Your task to perform on an android device: Search for Italian restaurants on Maps Image 0: 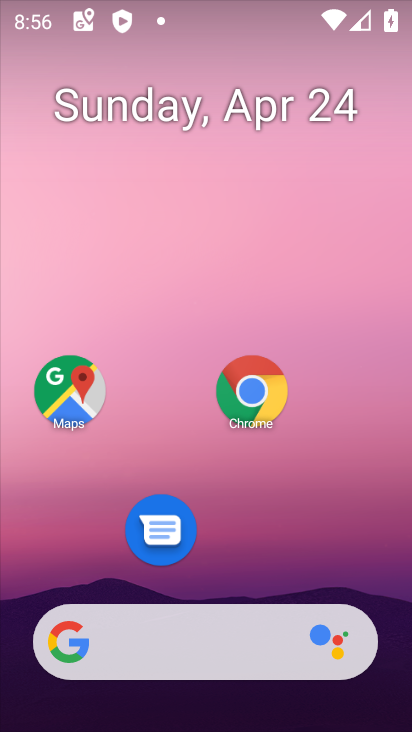
Step 0: click (74, 393)
Your task to perform on an android device: Search for Italian restaurants on Maps Image 1: 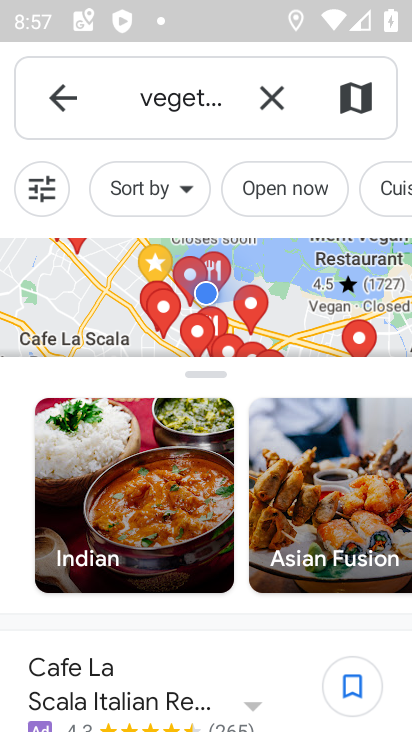
Step 1: click (263, 97)
Your task to perform on an android device: Search for Italian restaurants on Maps Image 2: 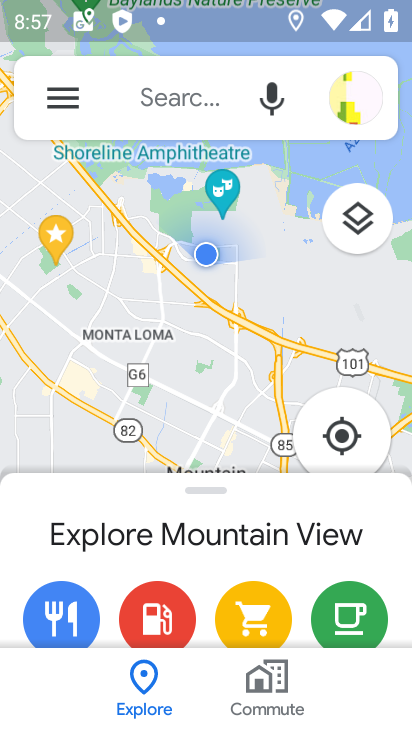
Step 2: click (179, 85)
Your task to perform on an android device: Search for Italian restaurants on Maps Image 3: 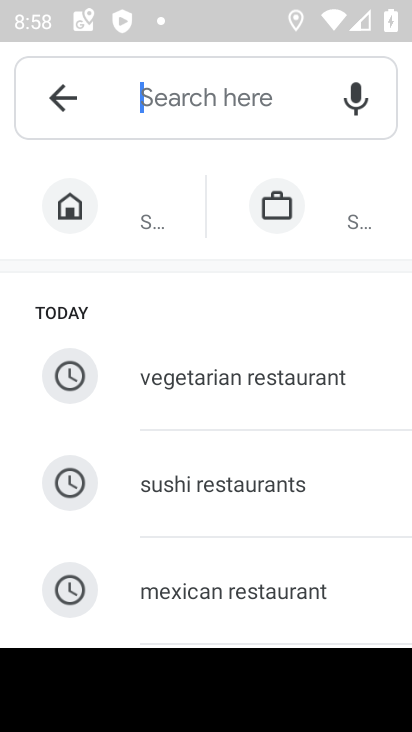
Step 3: type "italian restaurant"
Your task to perform on an android device: Search for Italian restaurants on Maps Image 4: 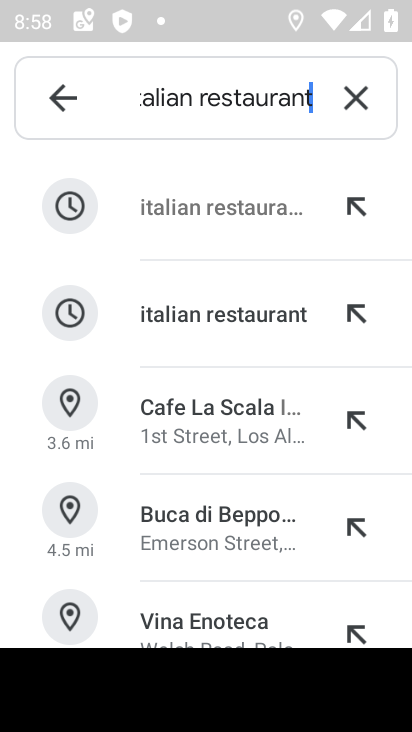
Step 4: click (264, 201)
Your task to perform on an android device: Search for Italian restaurants on Maps Image 5: 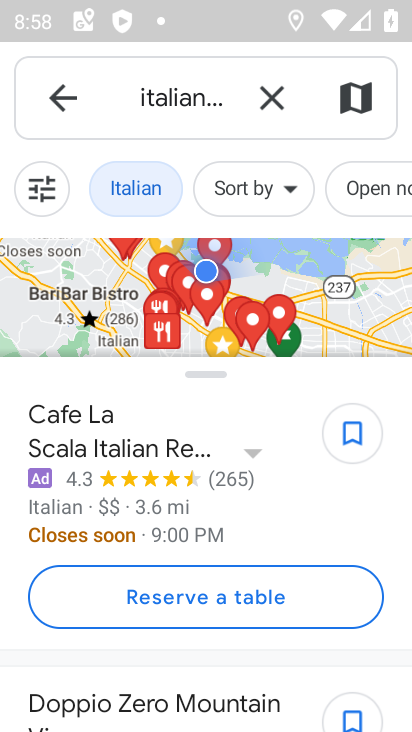
Step 5: task complete